Your task to perform on an android device: turn off notifications settings in the gmail app Image 0: 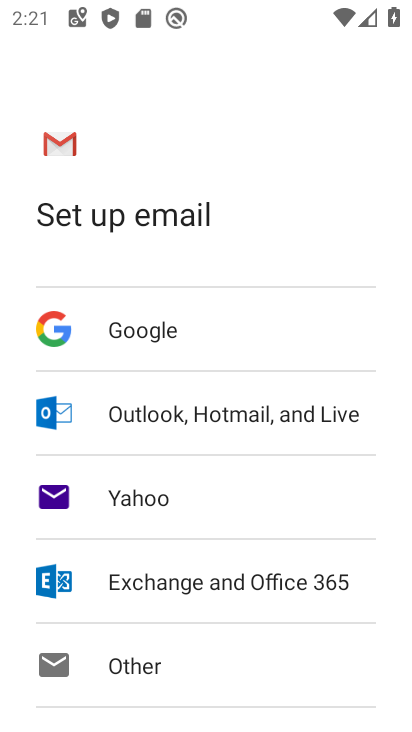
Step 0: press home button
Your task to perform on an android device: turn off notifications settings in the gmail app Image 1: 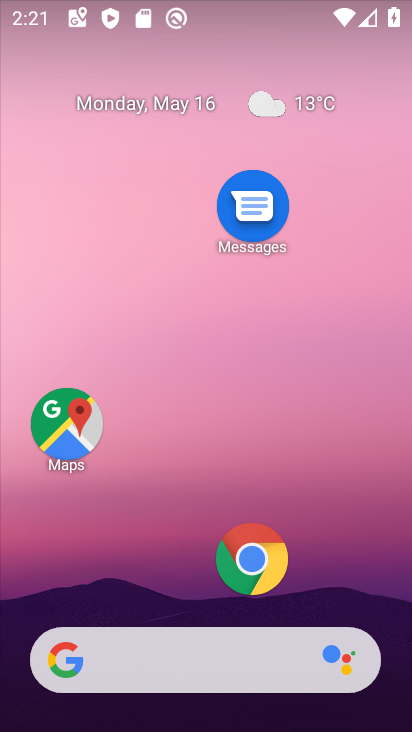
Step 1: drag from (148, 584) to (153, 119)
Your task to perform on an android device: turn off notifications settings in the gmail app Image 2: 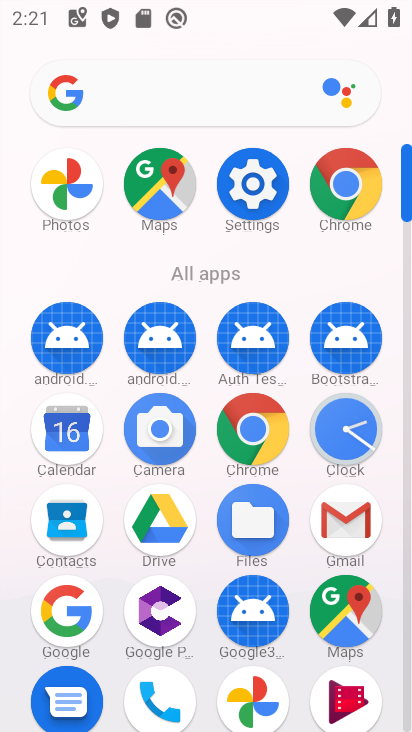
Step 2: click (350, 520)
Your task to perform on an android device: turn off notifications settings in the gmail app Image 3: 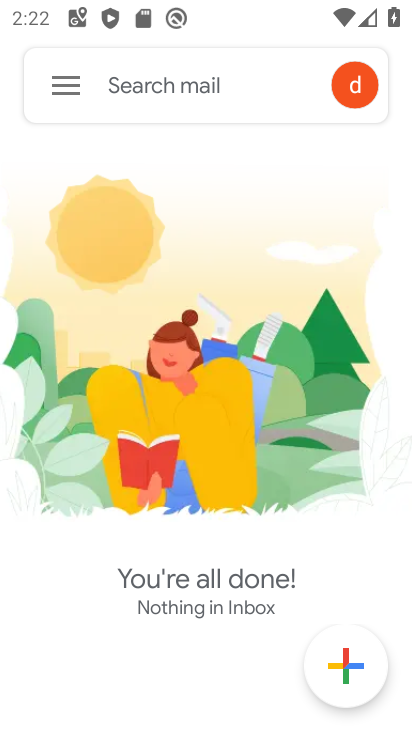
Step 3: click (70, 86)
Your task to perform on an android device: turn off notifications settings in the gmail app Image 4: 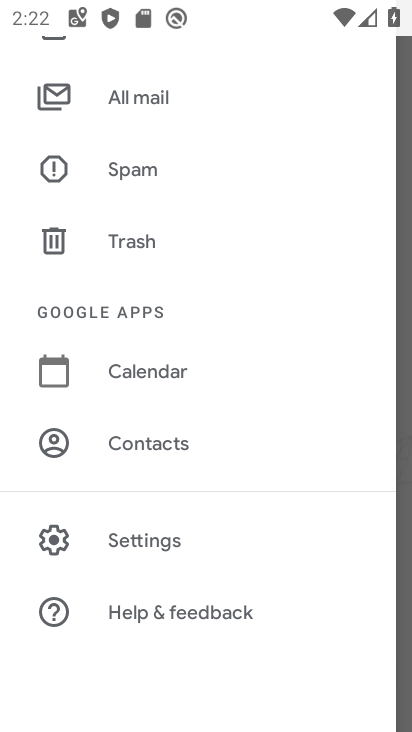
Step 4: click (164, 552)
Your task to perform on an android device: turn off notifications settings in the gmail app Image 5: 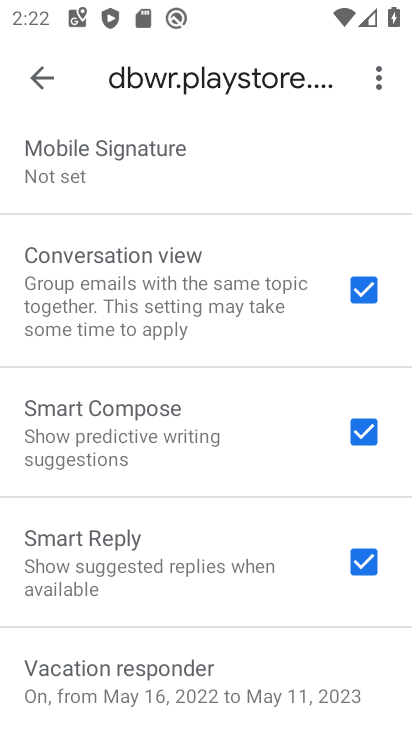
Step 5: drag from (180, 617) to (224, 134)
Your task to perform on an android device: turn off notifications settings in the gmail app Image 6: 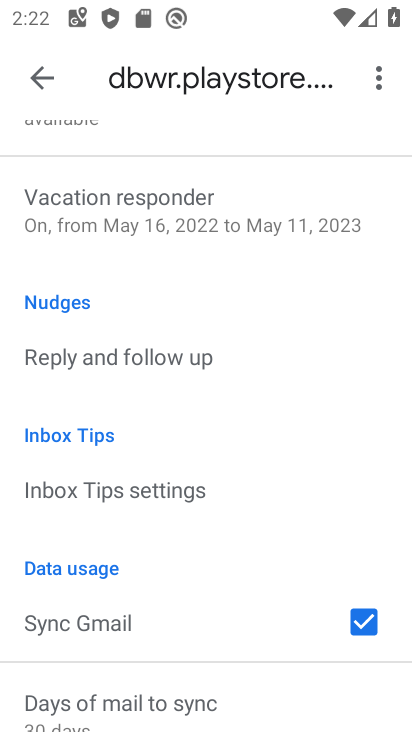
Step 6: drag from (136, 276) to (165, 556)
Your task to perform on an android device: turn off notifications settings in the gmail app Image 7: 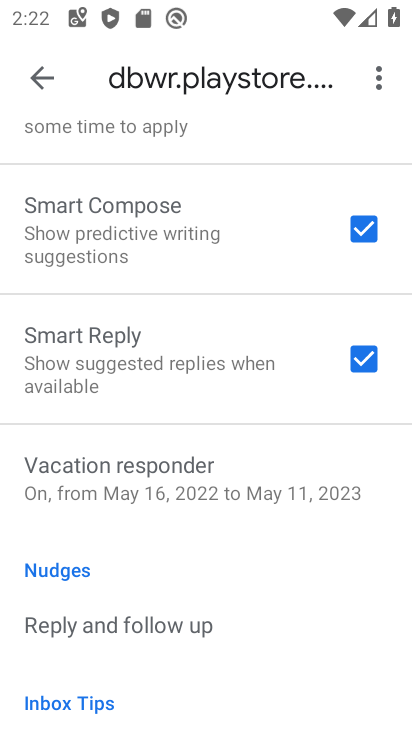
Step 7: drag from (186, 204) to (167, 585)
Your task to perform on an android device: turn off notifications settings in the gmail app Image 8: 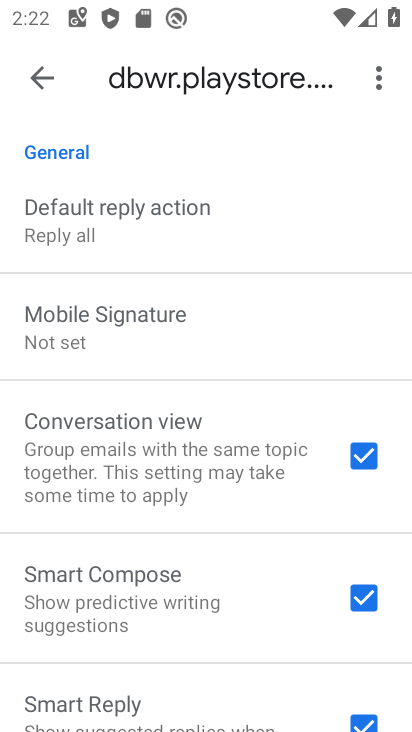
Step 8: drag from (188, 219) to (208, 496)
Your task to perform on an android device: turn off notifications settings in the gmail app Image 9: 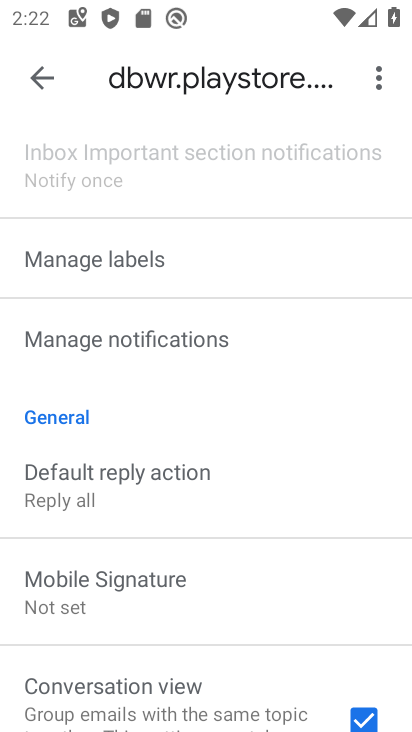
Step 9: click (150, 339)
Your task to perform on an android device: turn off notifications settings in the gmail app Image 10: 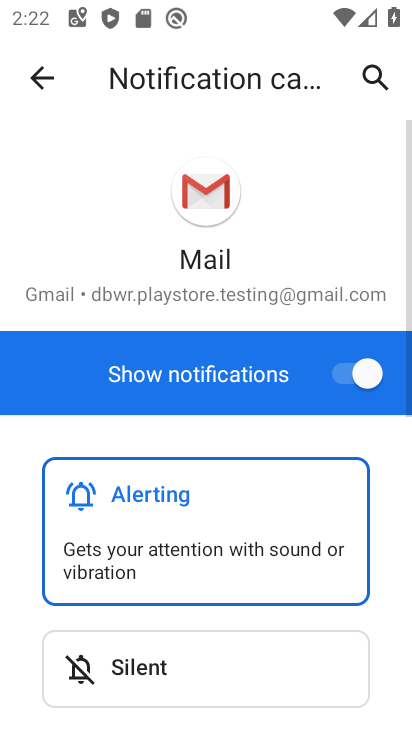
Step 10: click (344, 370)
Your task to perform on an android device: turn off notifications settings in the gmail app Image 11: 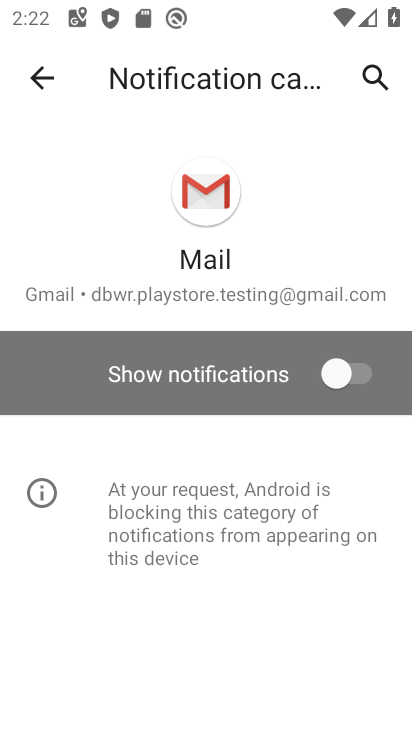
Step 11: task complete